Your task to perform on an android device: remove spam from my inbox in the gmail app Image 0: 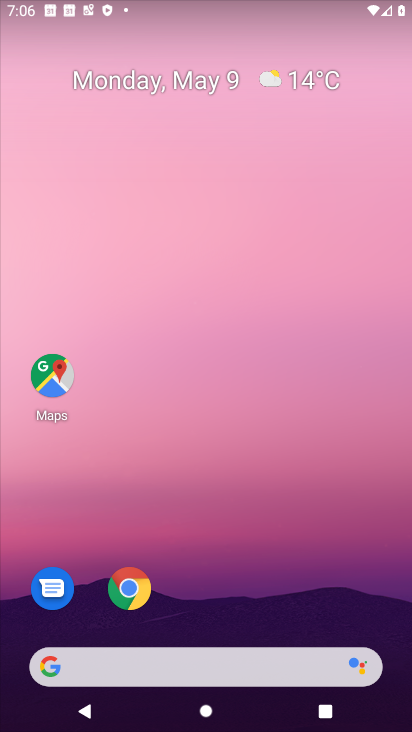
Step 0: drag from (337, 592) to (221, 63)
Your task to perform on an android device: remove spam from my inbox in the gmail app Image 1: 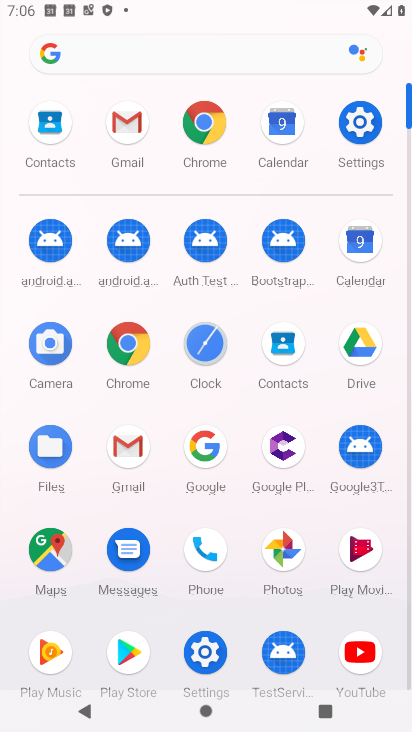
Step 1: click (140, 446)
Your task to perform on an android device: remove spam from my inbox in the gmail app Image 2: 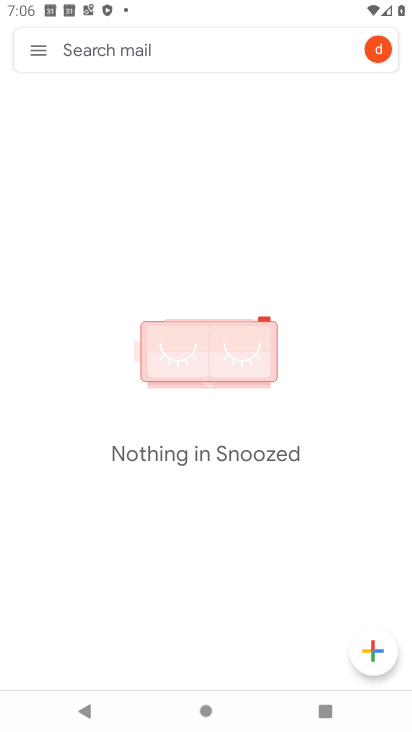
Step 2: click (29, 47)
Your task to perform on an android device: remove spam from my inbox in the gmail app Image 3: 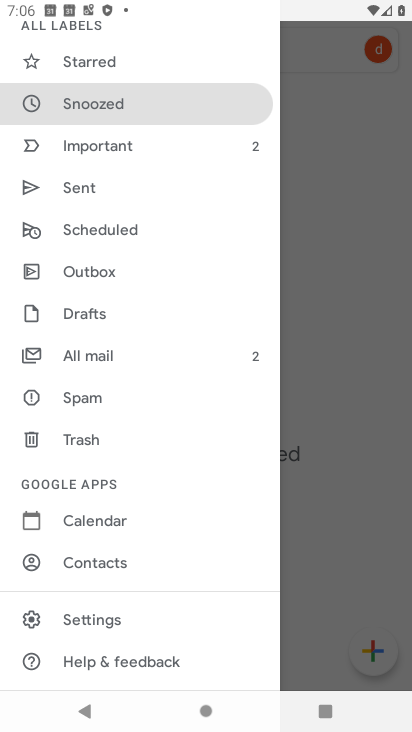
Step 3: click (79, 397)
Your task to perform on an android device: remove spam from my inbox in the gmail app Image 4: 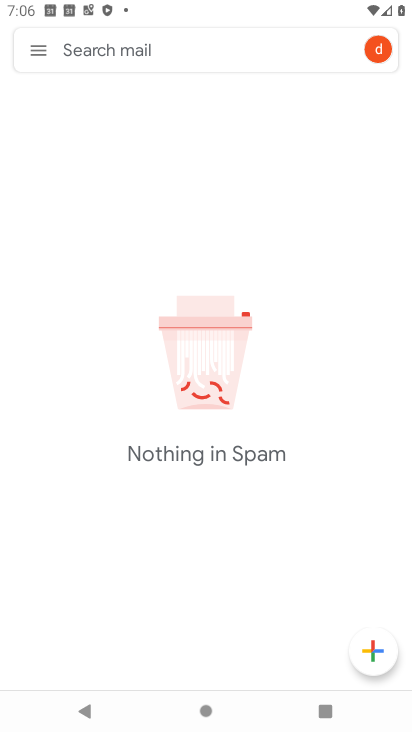
Step 4: task complete